Your task to perform on an android device: open sync settings in chrome Image 0: 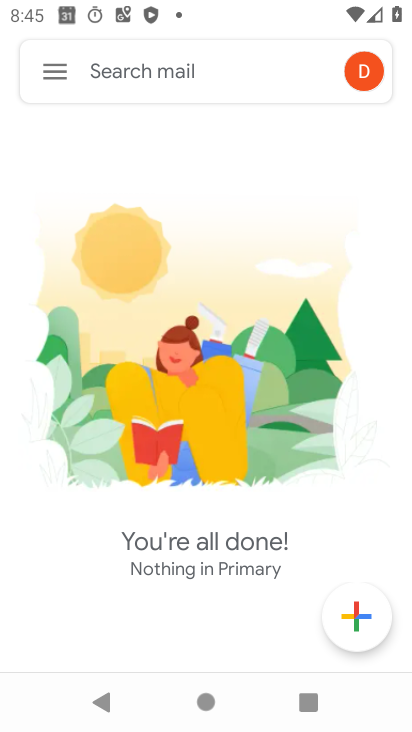
Step 0: press back button
Your task to perform on an android device: open sync settings in chrome Image 1: 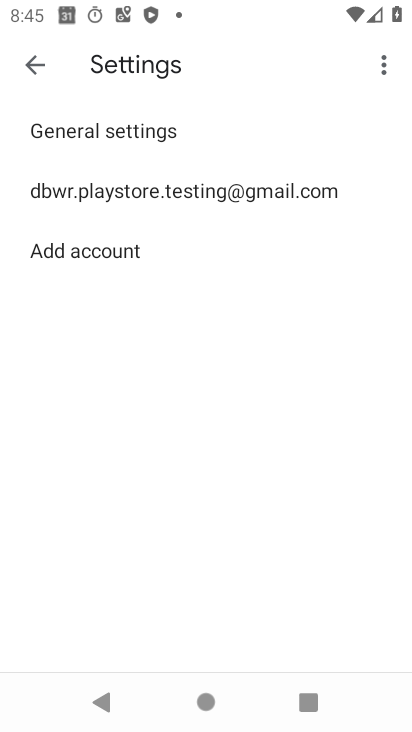
Step 1: press home button
Your task to perform on an android device: open sync settings in chrome Image 2: 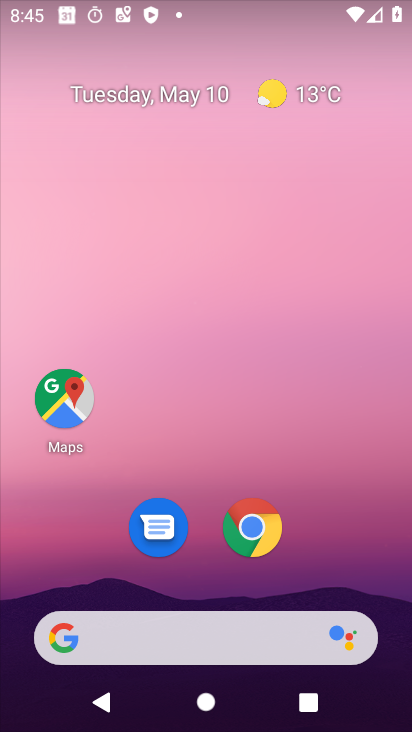
Step 2: drag from (78, 588) to (337, 50)
Your task to perform on an android device: open sync settings in chrome Image 3: 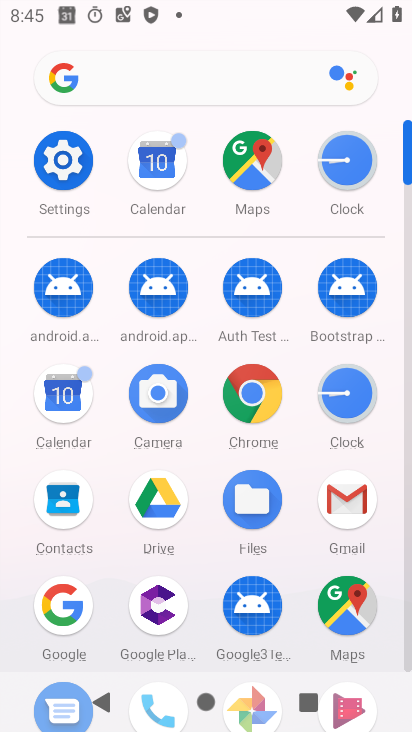
Step 3: click (52, 165)
Your task to perform on an android device: open sync settings in chrome Image 4: 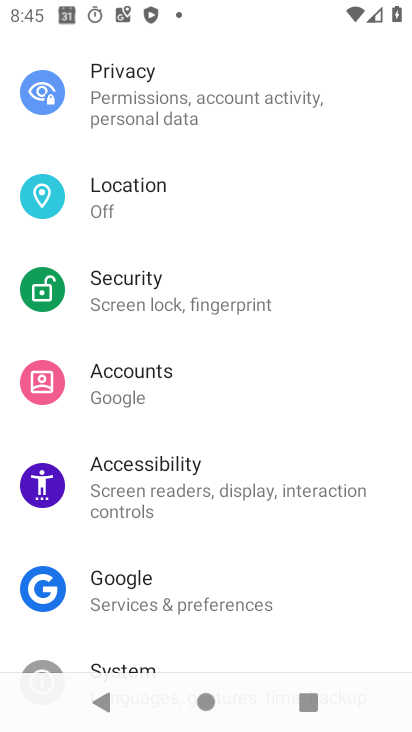
Step 4: click (196, 702)
Your task to perform on an android device: open sync settings in chrome Image 5: 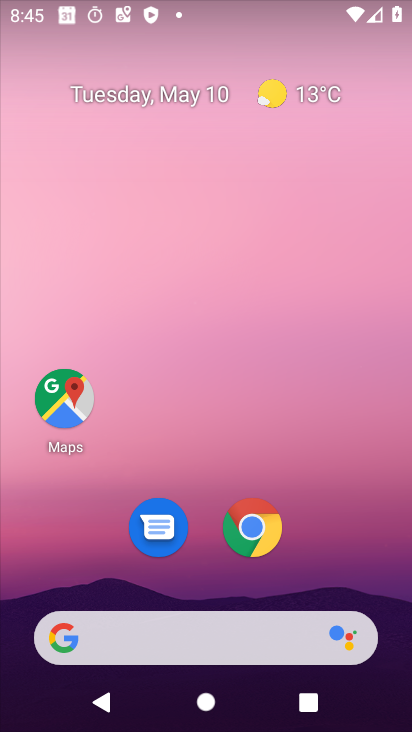
Step 5: click (255, 530)
Your task to perform on an android device: open sync settings in chrome Image 6: 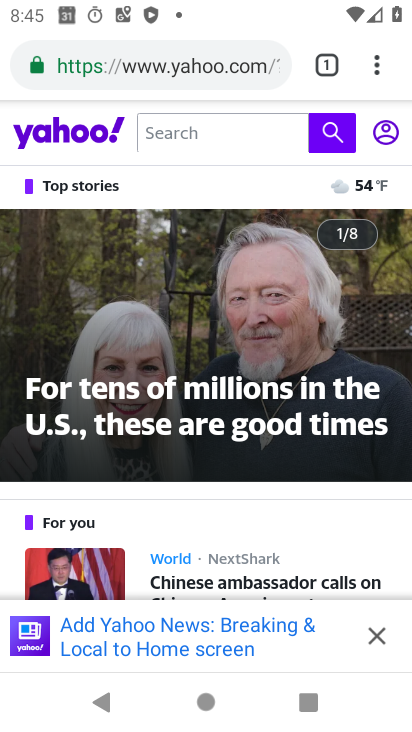
Step 6: click (365, 69)
Your task to perform on an android device: open sync settings in chrome Image 7: 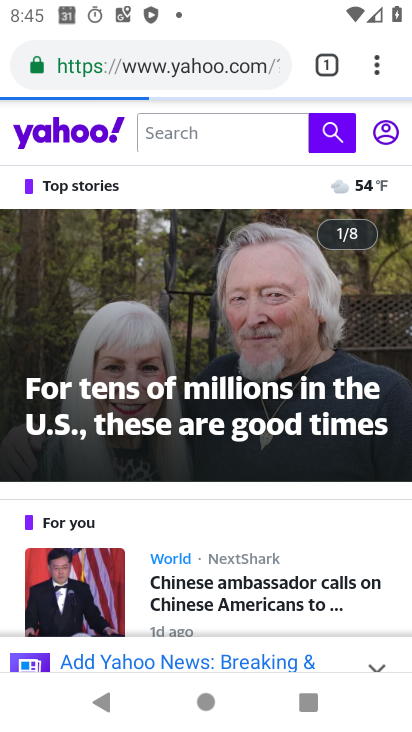
Step 7: click (374, 64)
Your task to perform on an android device: open sync settings in chrome Image 8: 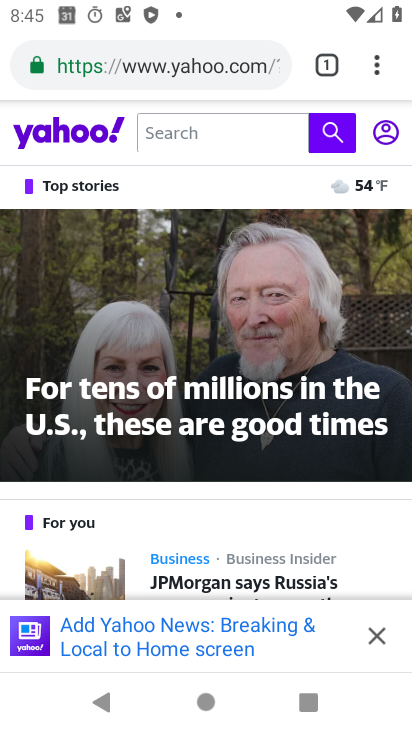
Step 8: click (359, 62)
Your task to perform on an android device: open sync settings in chrome Image 9: 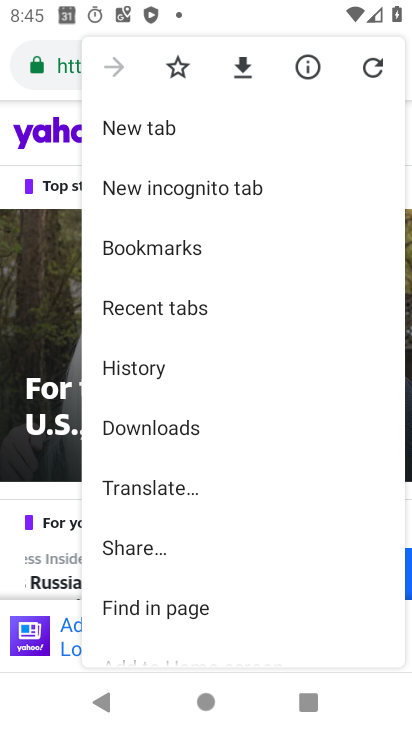
Step 9: drag from (185, 609) to (307, 144)
Your task to perform on an android device: open sync settings in chrome Image 10: 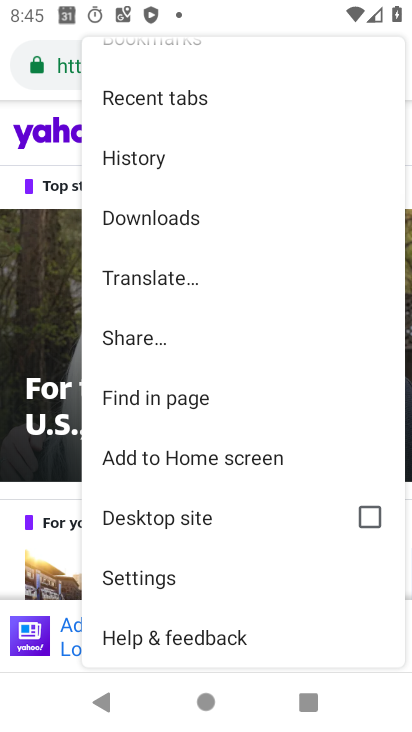
Step 10: click (170, 572)
Your task to perform on an android device: open sync settings in chrome Image 11: 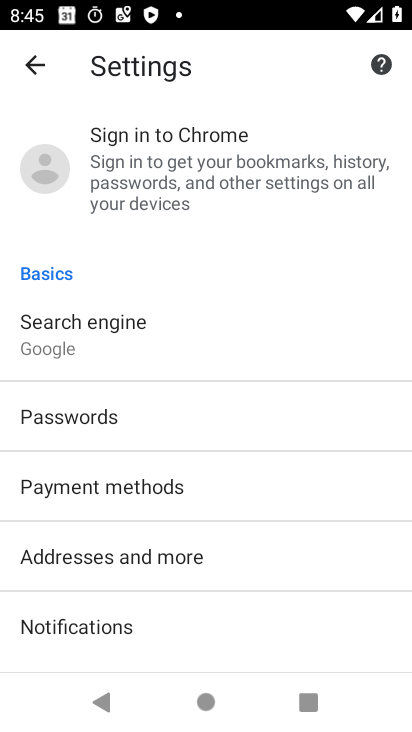
Step 11: drag from (199, 628) to (323, 199)
Your task to perform on an android device: open sync settings in chrome Image 12: 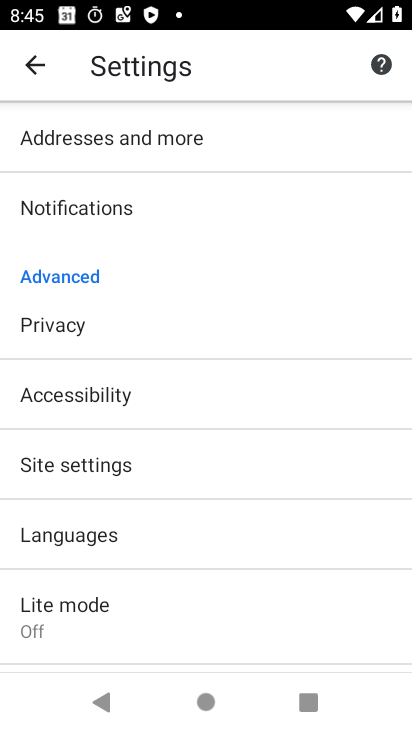
Step 12: drag from (172, 136) to (62, 696)
Your task to perform on an android device: open sync settings in chrome Image 13: 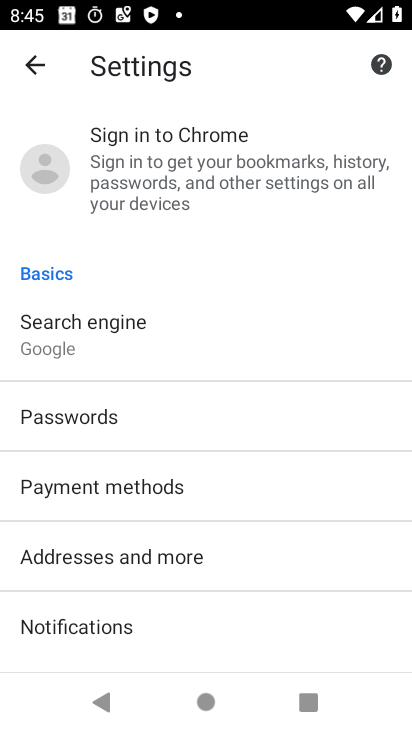
Step 13: drag from (127, 643) to (252, 163)
Your task to perform on an android device: open sync settings in chrome Image 14: 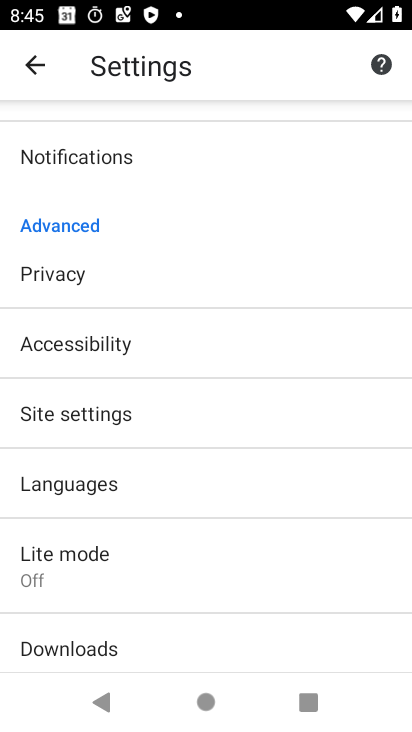
Step 14: drag from (51, 668) to (292, 139)
Your task to perform on an android device: open sync settings in chrome Image 15: 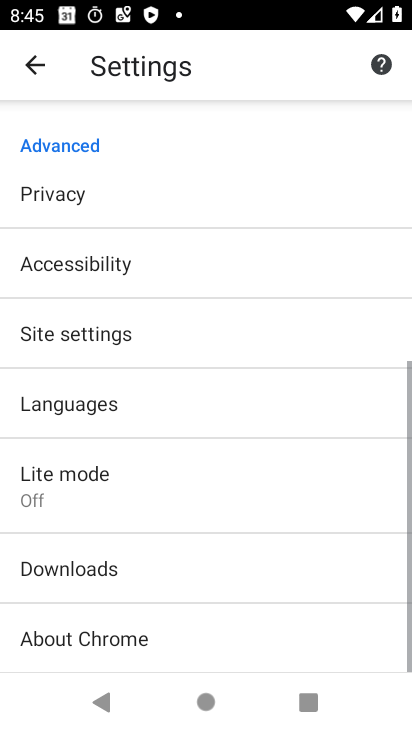
Step 15: drag from (96, 611) to (286, 264)
Your task to perform on an android device: open sync settings in chrome Image 16: 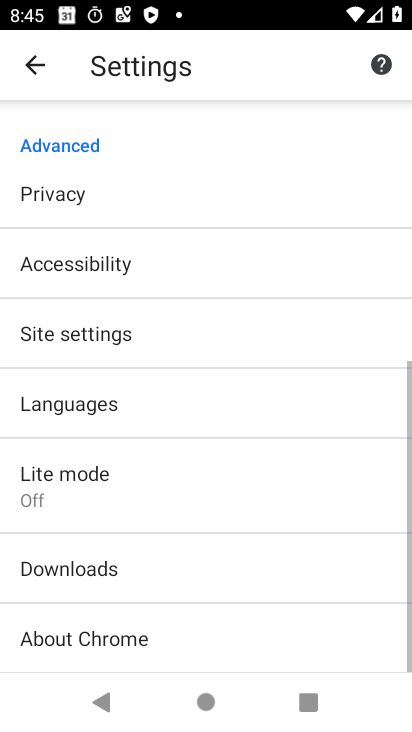
Step 16: drag from (305, 213) to (215, 639)
Your task to perform on an android device: open sync settings in chrome Image 17: 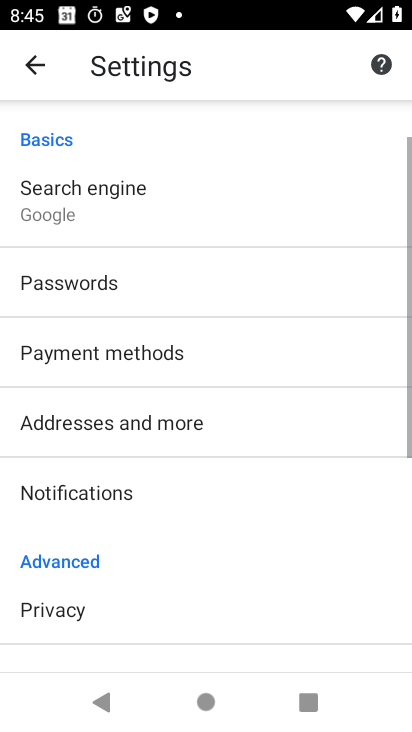
Step 17: drag from (17, 637) to (305, 92)
Your task to perform on an android device: open sync settings in chrome Image 18: 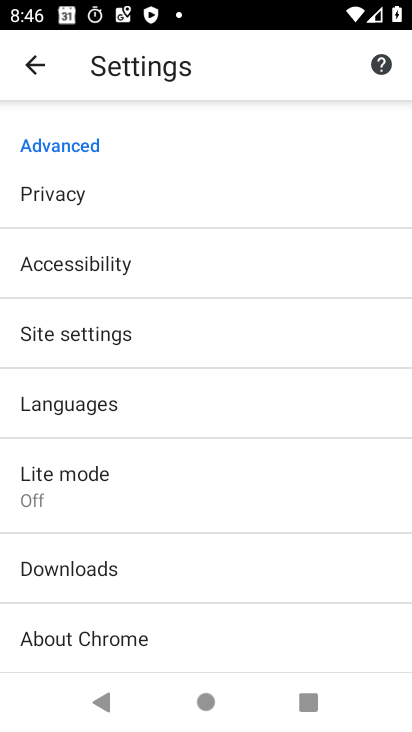
Step 18: click (272, 321)
Your task to perform on an android device: open sync settings in chrome Image 19: 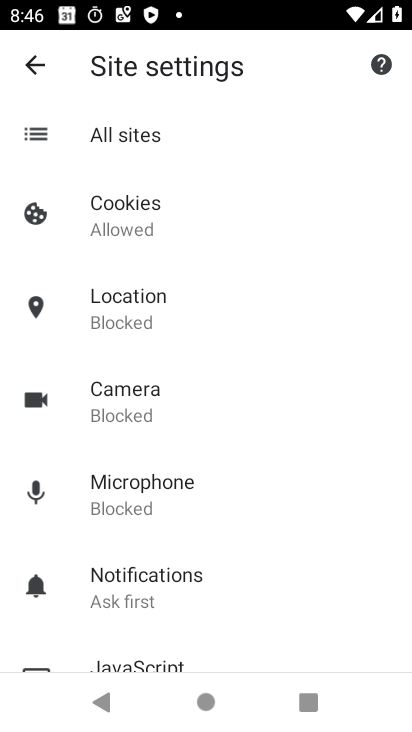
Step 19: drag from (85, 622) to (349, 92)
Your task to perform on an android device: open sync settings in chrome Image 20: 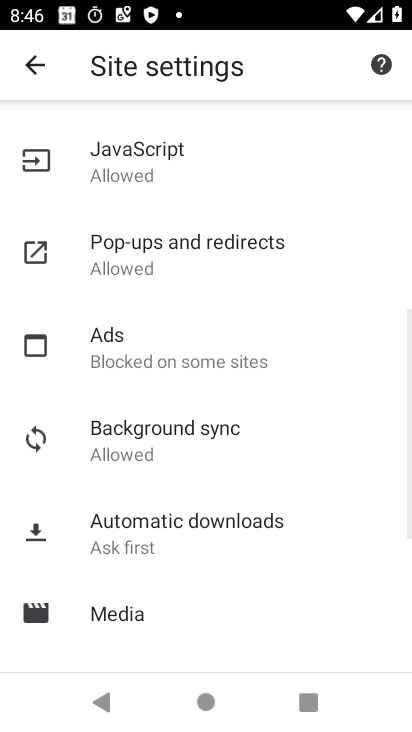
Step 20: click (152, 453)
Your task to perform on an android device: open sync settings in chrome Image 21: 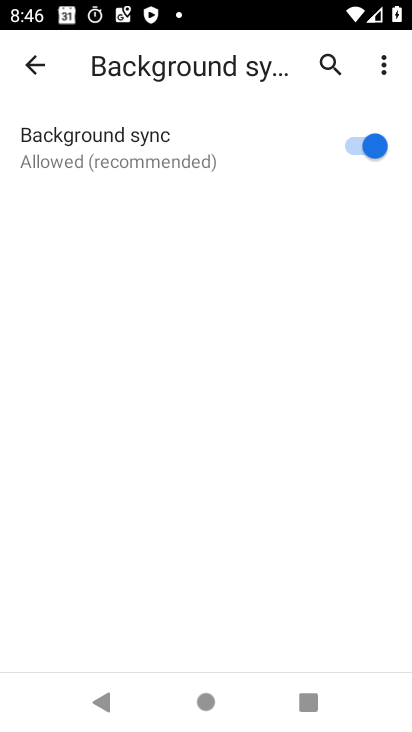
Step 21: task complete